Your task to perform on an android device: Search for Mexican restaurants on Maps Image 0: 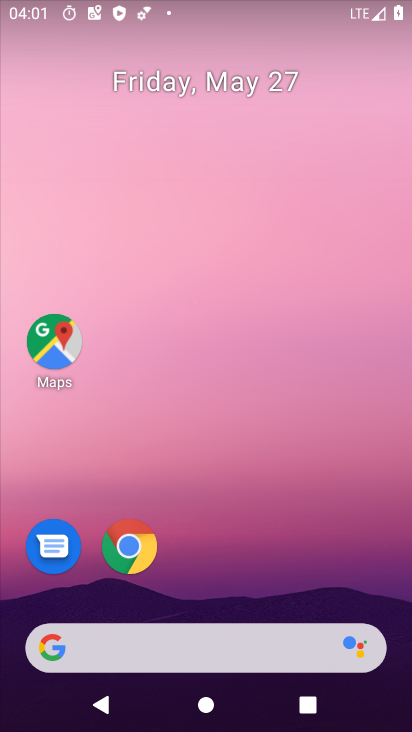
Step 0: click (53, 346)
Your task to perform on an android device: Search for Mexican restaurants on Maps Image 1: 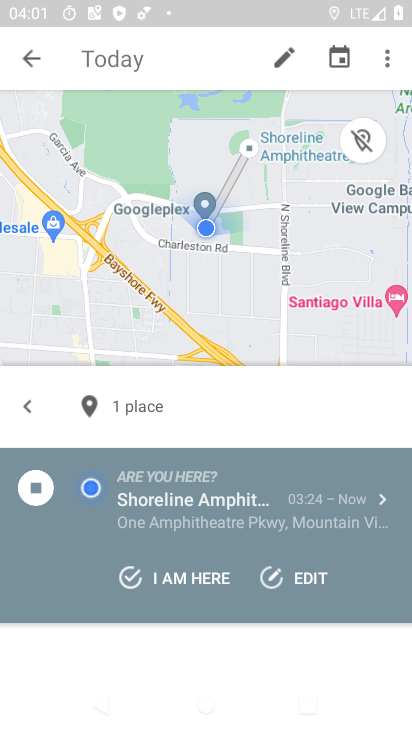
Step 1: click (25, 52)
Your task to perform on an android device: Search for Mexican restaurants on Maps Image 2: 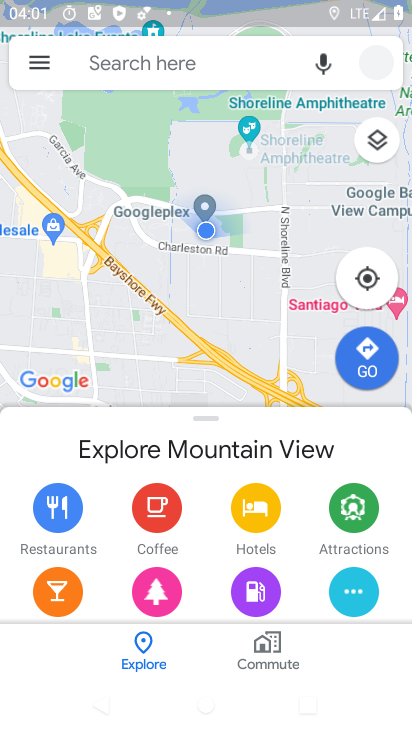
Step 2: click (88, 56)
Your task to perform on an android device: Search for Mexican restaurants on Maps Image 3: 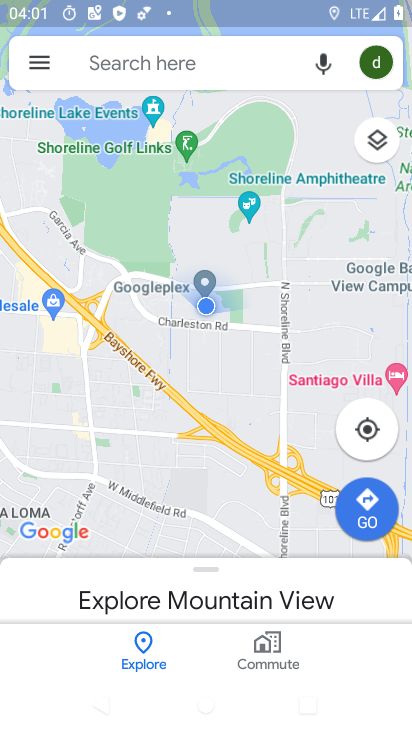
Step 3: click (87, 64)
Your task to perform on an android device: Search for Mexican restaurants on Maps Image 4: 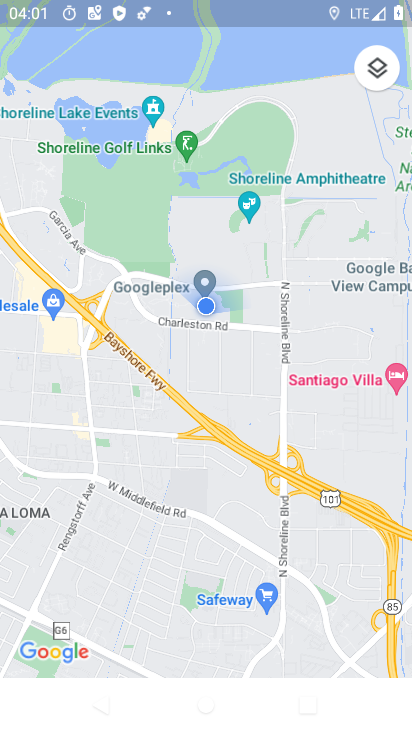
Step 4: press back button
Your task to perform on an android device: Search for Mexican restaurants on Maps Image 5: 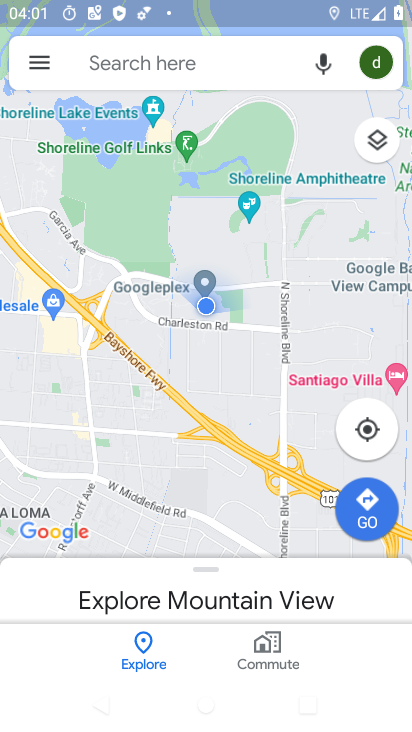
Step 5: click (92, 67)
Your task to perform on an android device: Search for Mexican restaurants on Maps Image 6: 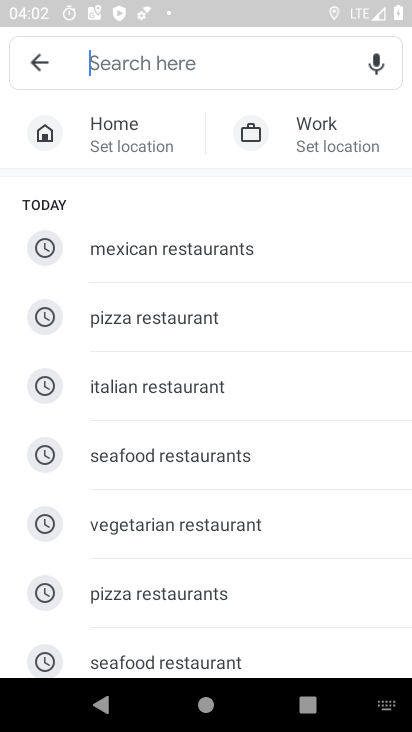
Step 6: type "Mexican restaurants"
Your task to perform on an android device: Search for Mexican restaurants on Maps Image 7: 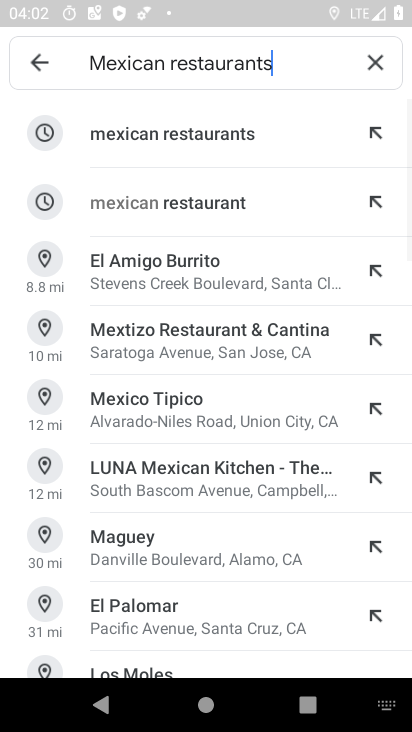
Step 7: click (149, 132)
Your task to perform on an android device: Search for Mexican restaurants on Maps Image 8: 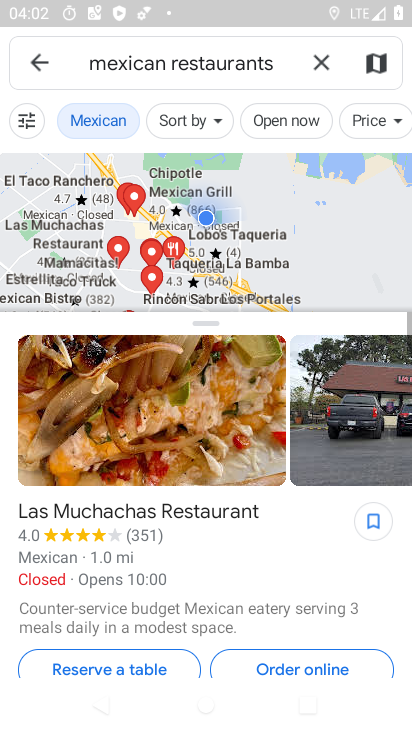
Step 8: task complete